Your task to perform on an android device: Go to accessibility settings Image 0: 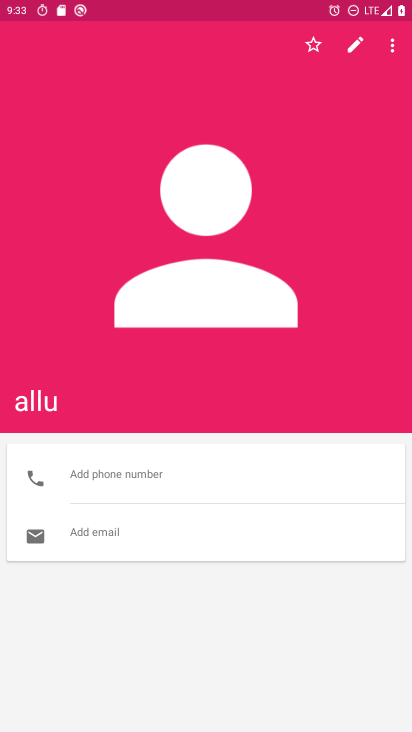
Step 0: press home button
Your task to perform on an android device: Go to accessibility settings Image 1: 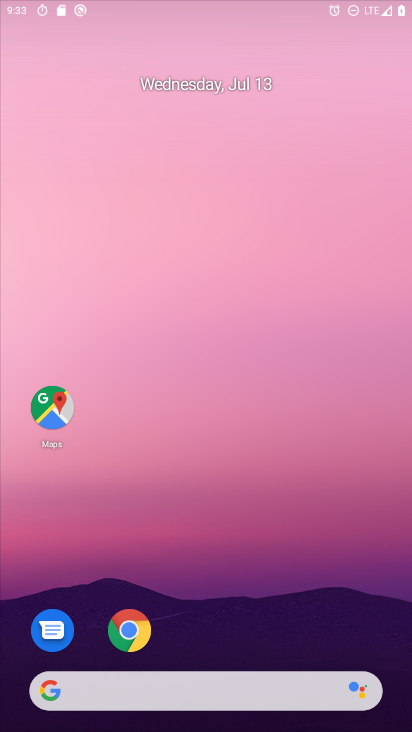
Step 1: drag from (399, 687) to (333, 17)
Your task to perform on an android device: Go to accessibility settings Image 2: 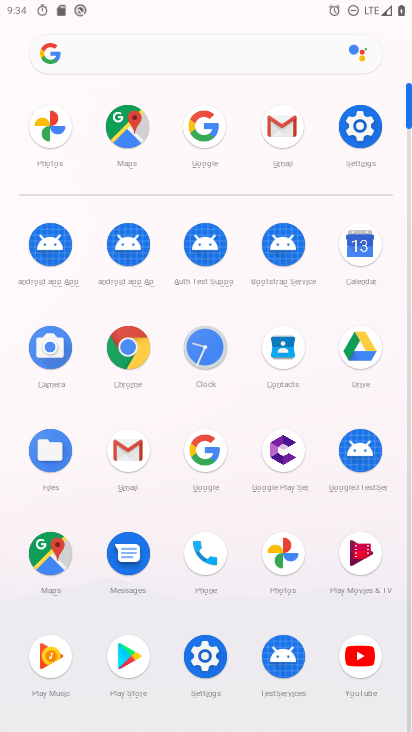
Step 2: click (215, 655)
Your task to perform on an android device: Go to accessibility settings Image 3: 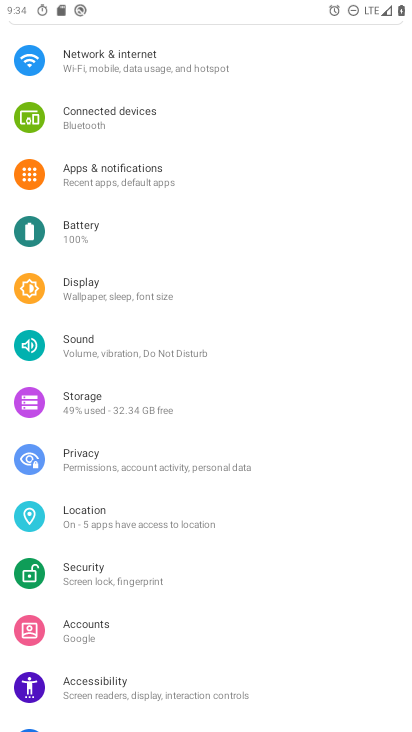
Step 3: click (107, 685)
Your task to perform on an android device: Go to accessibility settings Image 4: 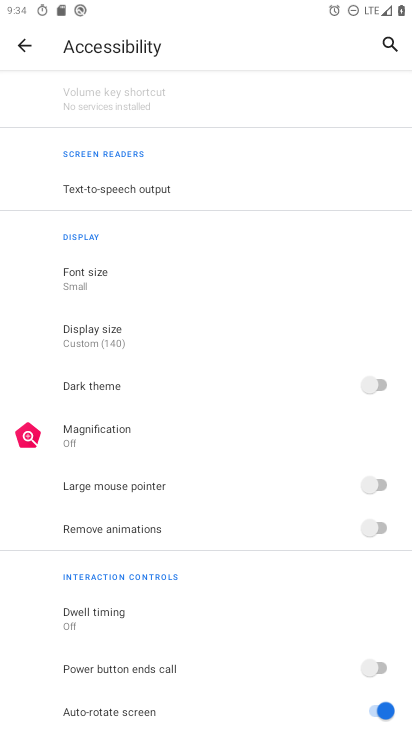
Step 4: task complete